Your task to perform on an android device: install app "Facebook" Image 0: 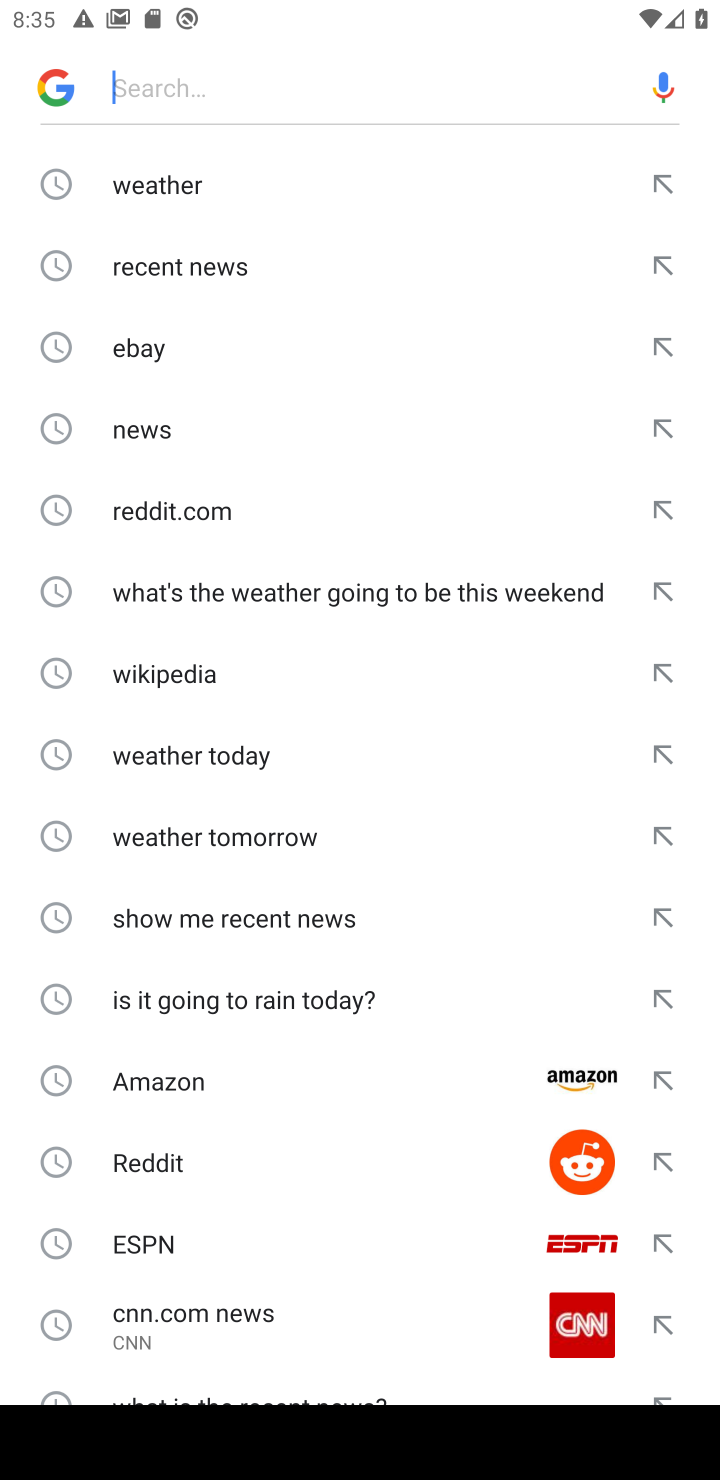
Step 0: press back button
Your task to perform on an android device: install app "Facebook" Image 1: 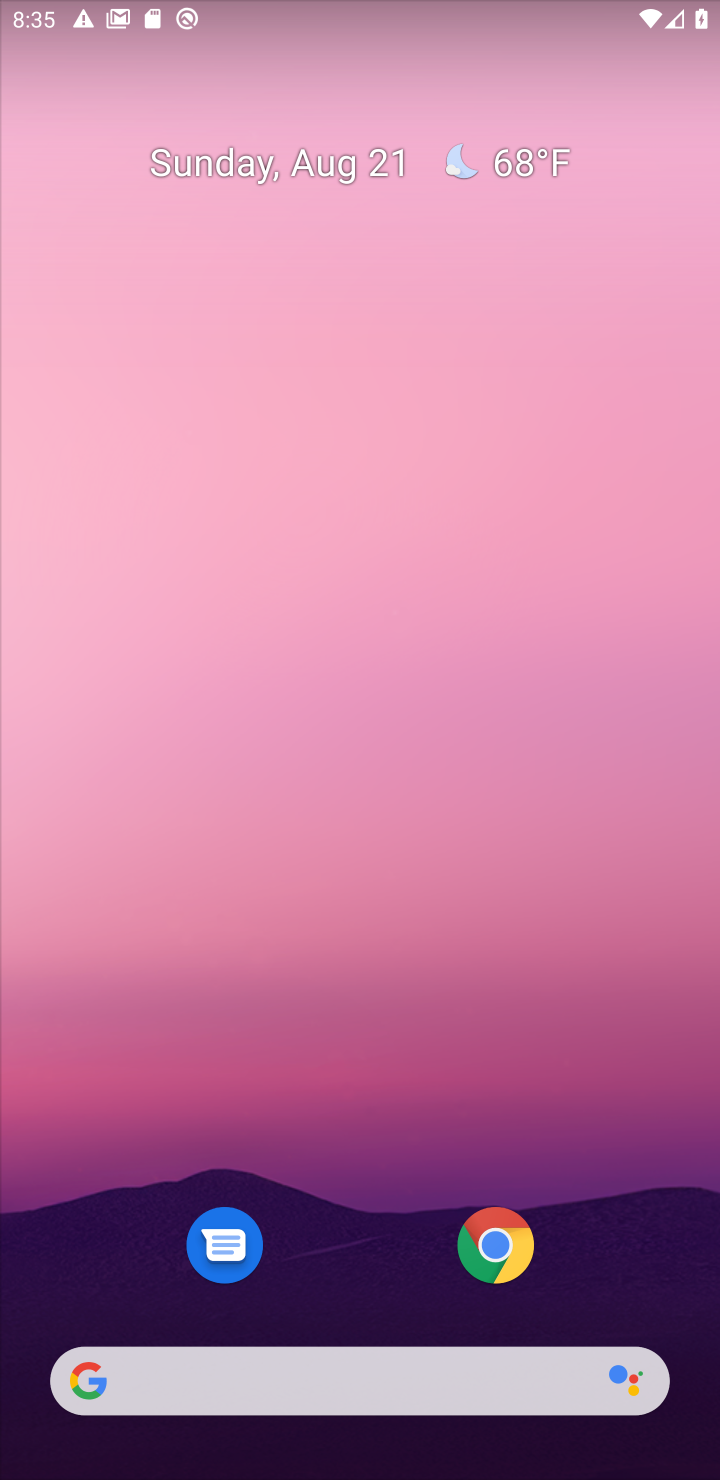
Step 1: drag from (351, 1323) to (329, 267)
Your task to perform on an android device: install app "Facebook" Image 2: 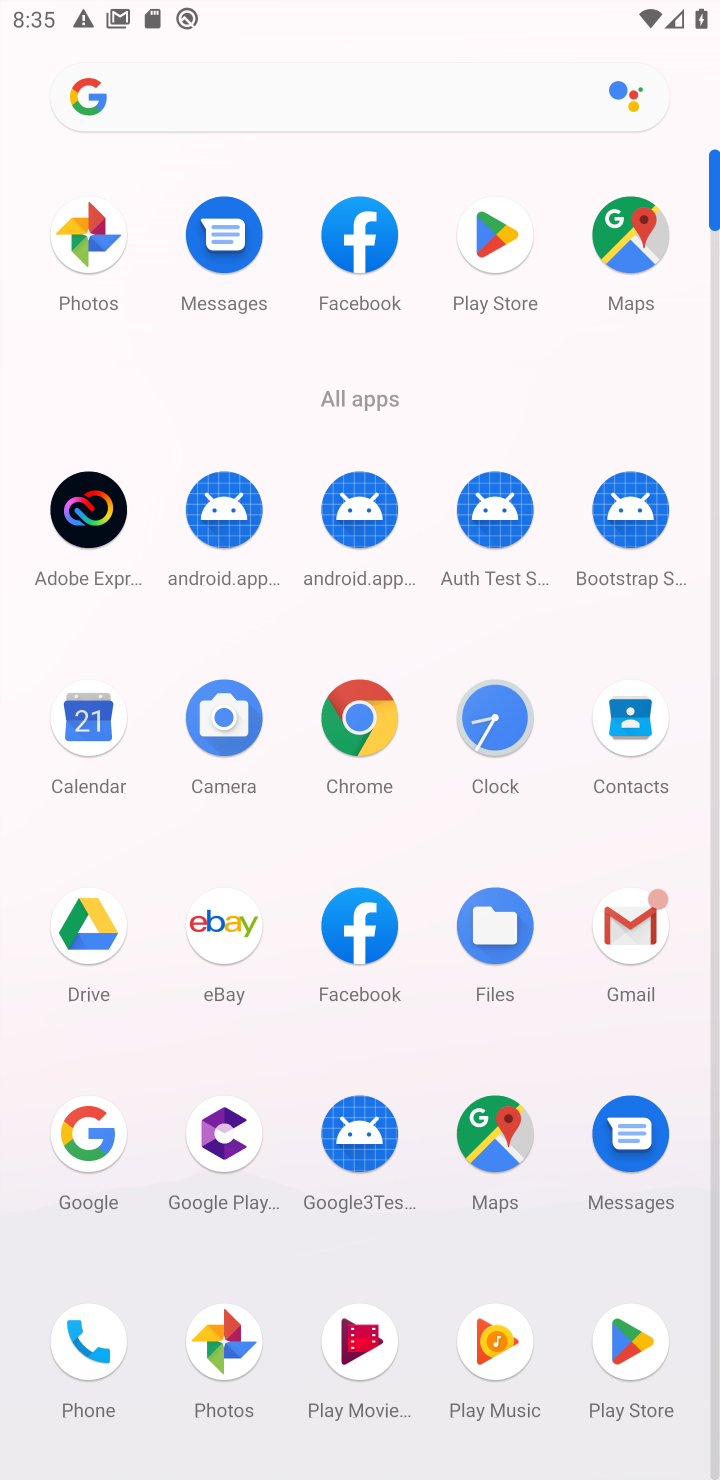
Step 2: click (627, 1339)
Your task to perform on an android device: install app "Facebook" Image 3: 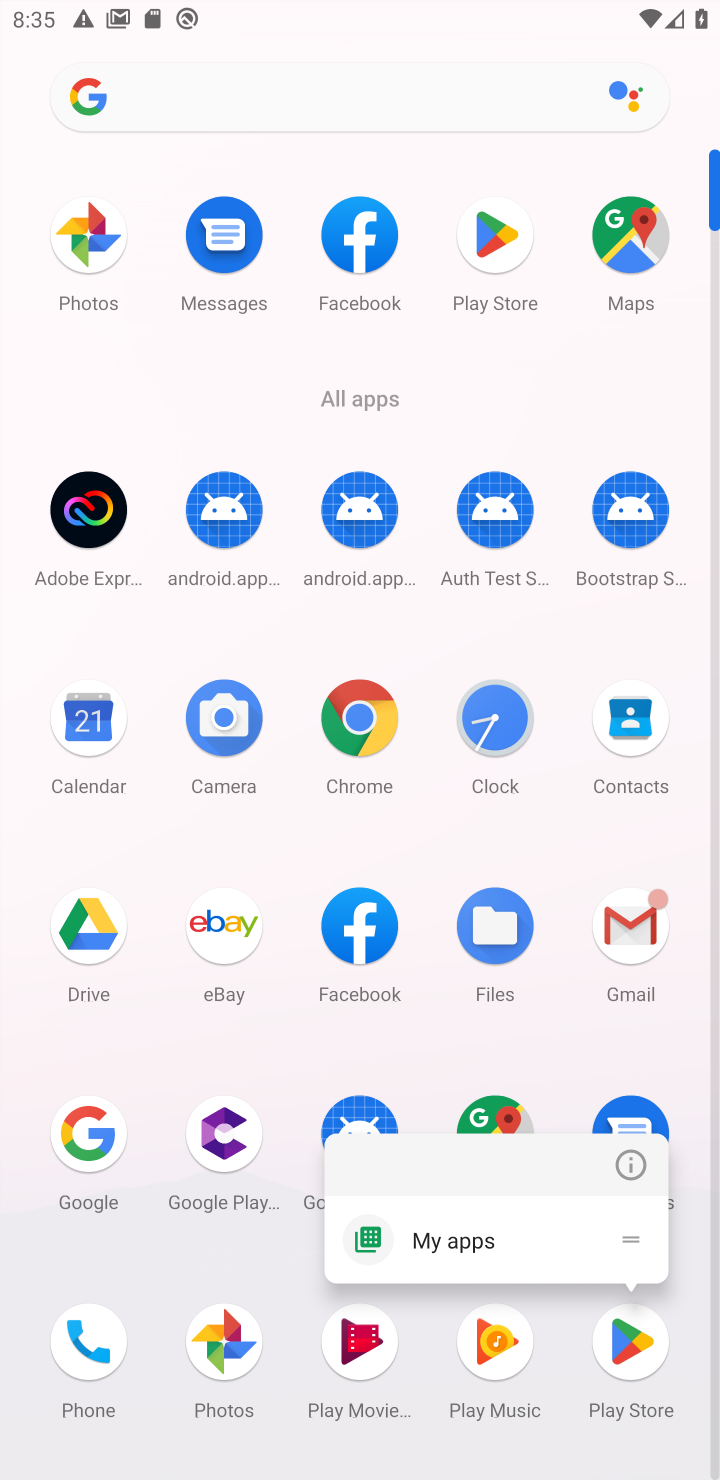
Step 3: click (640, 1399)
Your task to perform on an android device: install app "Facebook" Image 4: 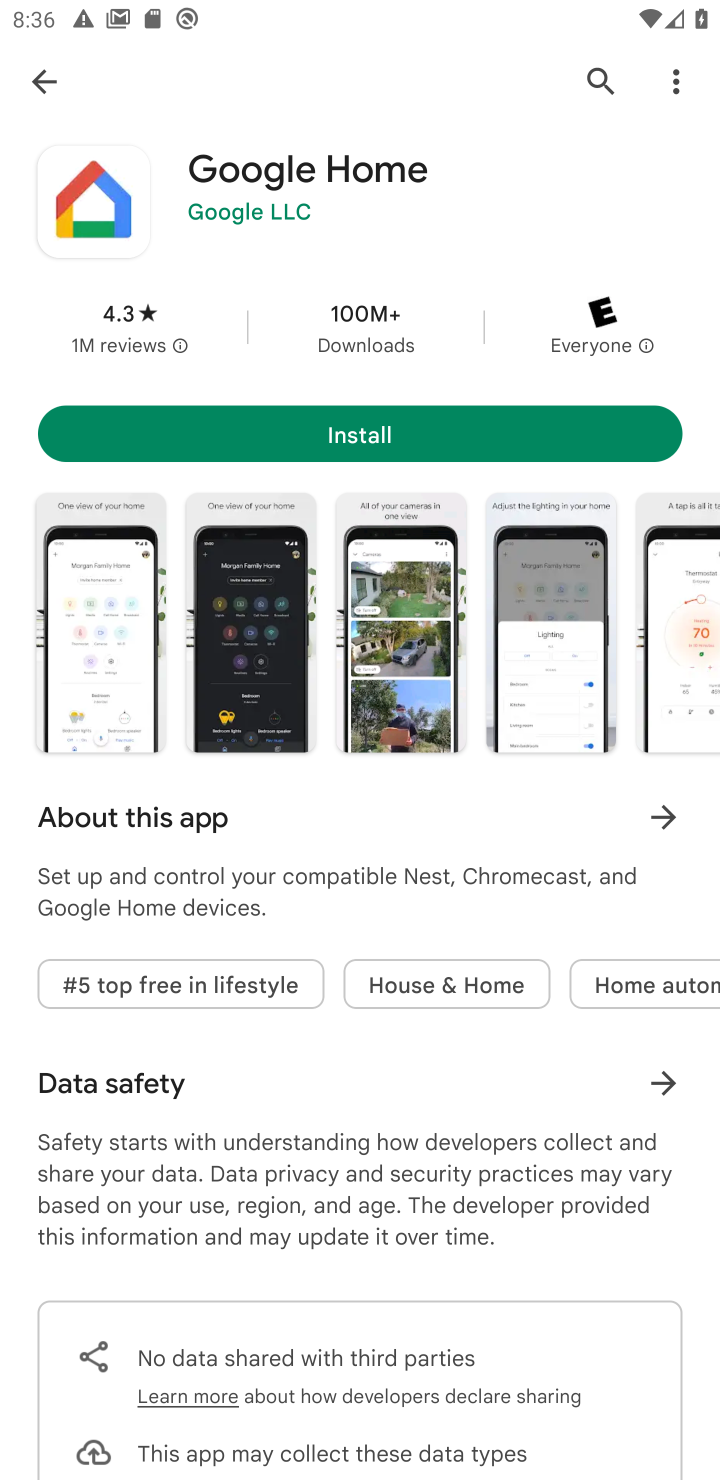
Step 4: click (49, 84)
Your task to perform on an android device: install app "Facebook" Image 5: 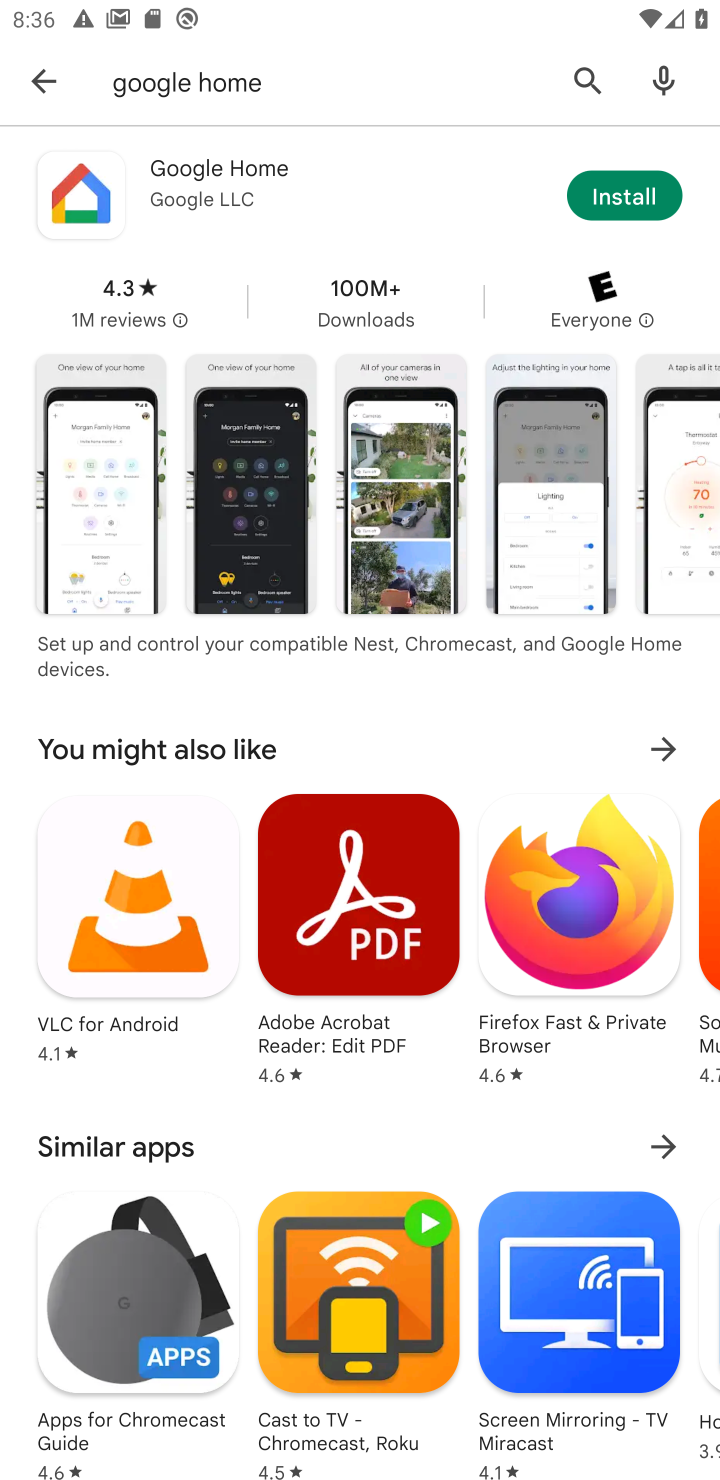
Step 5: click (44, 107)
Your task to perform on an android device: install app "Facebook" Image 6: 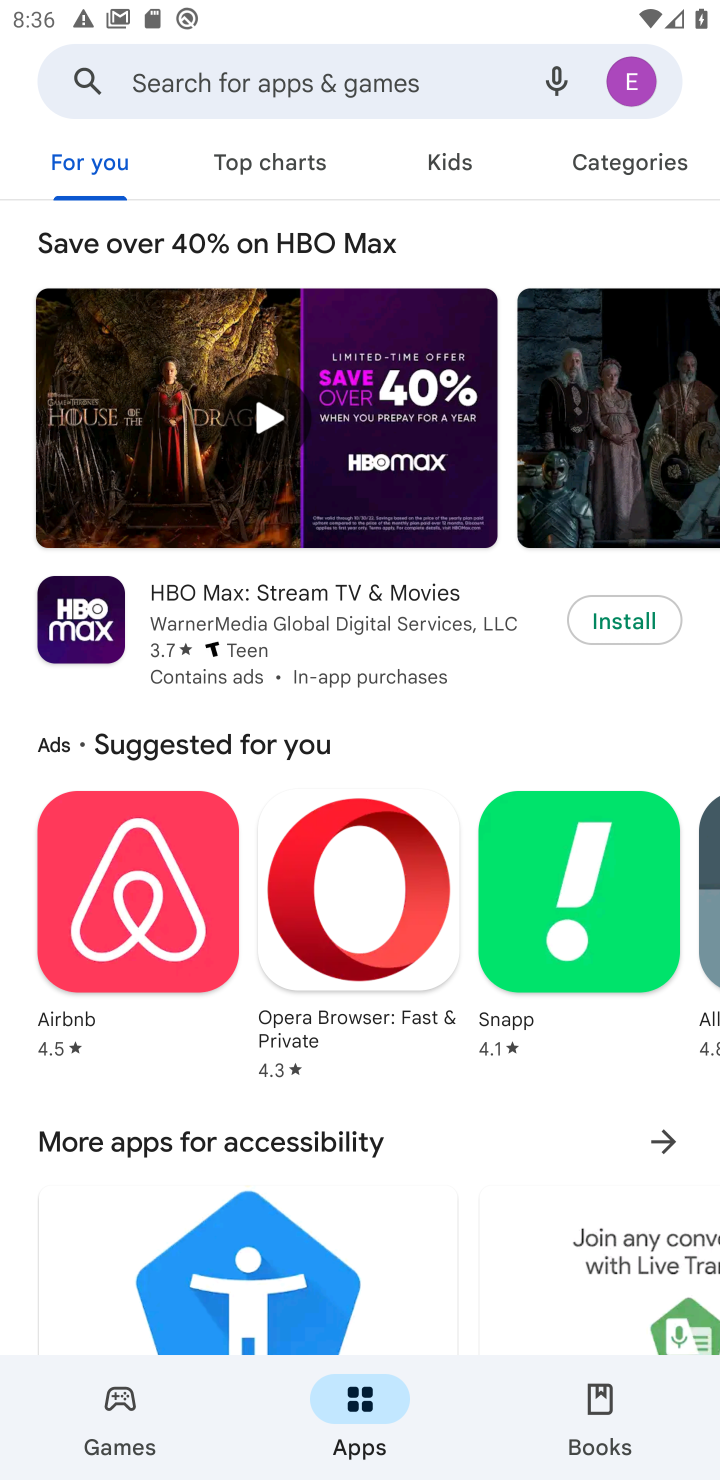
Step 6: click (196, 67)
Your task to perform on an android device: install app "Facebook" Image 7: 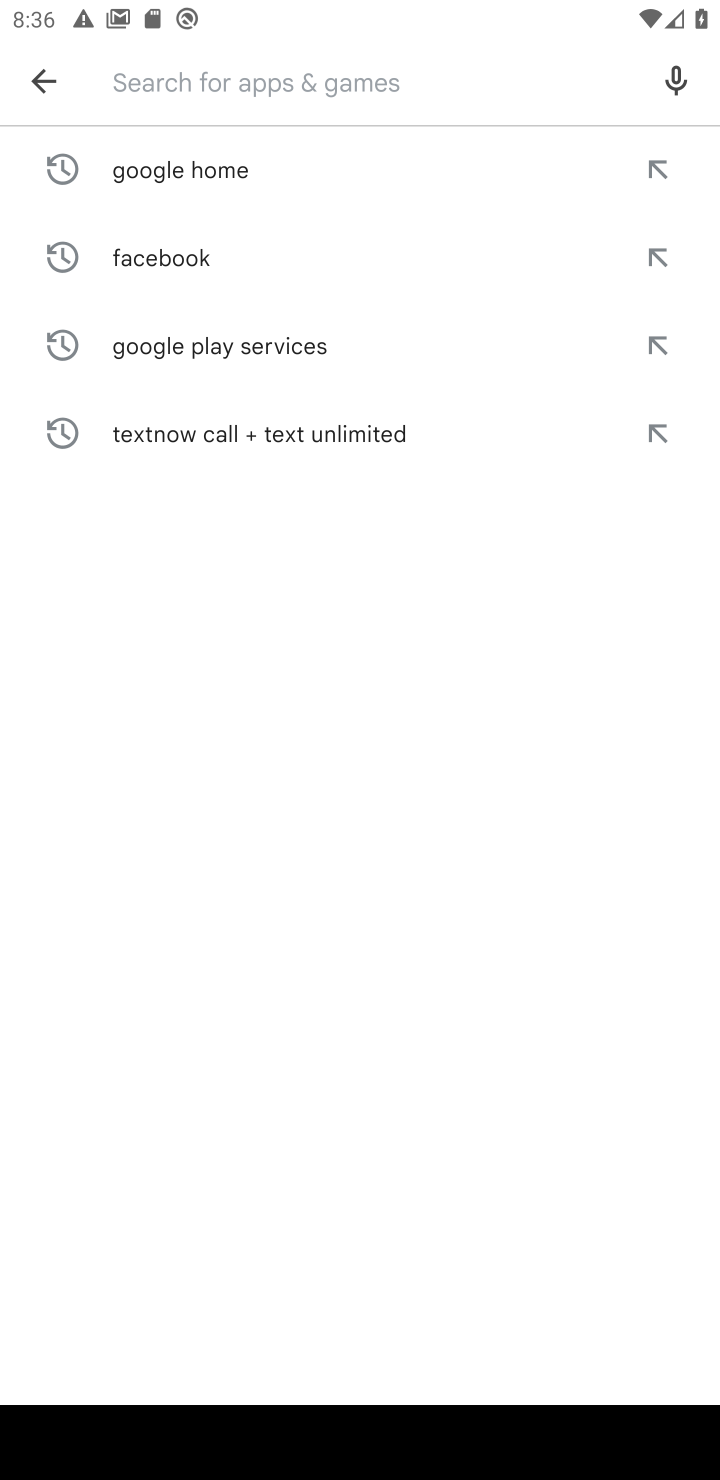
Step 7: type "Facebook"
Your task to perform on an android device: install app "Facebook" Image 8: 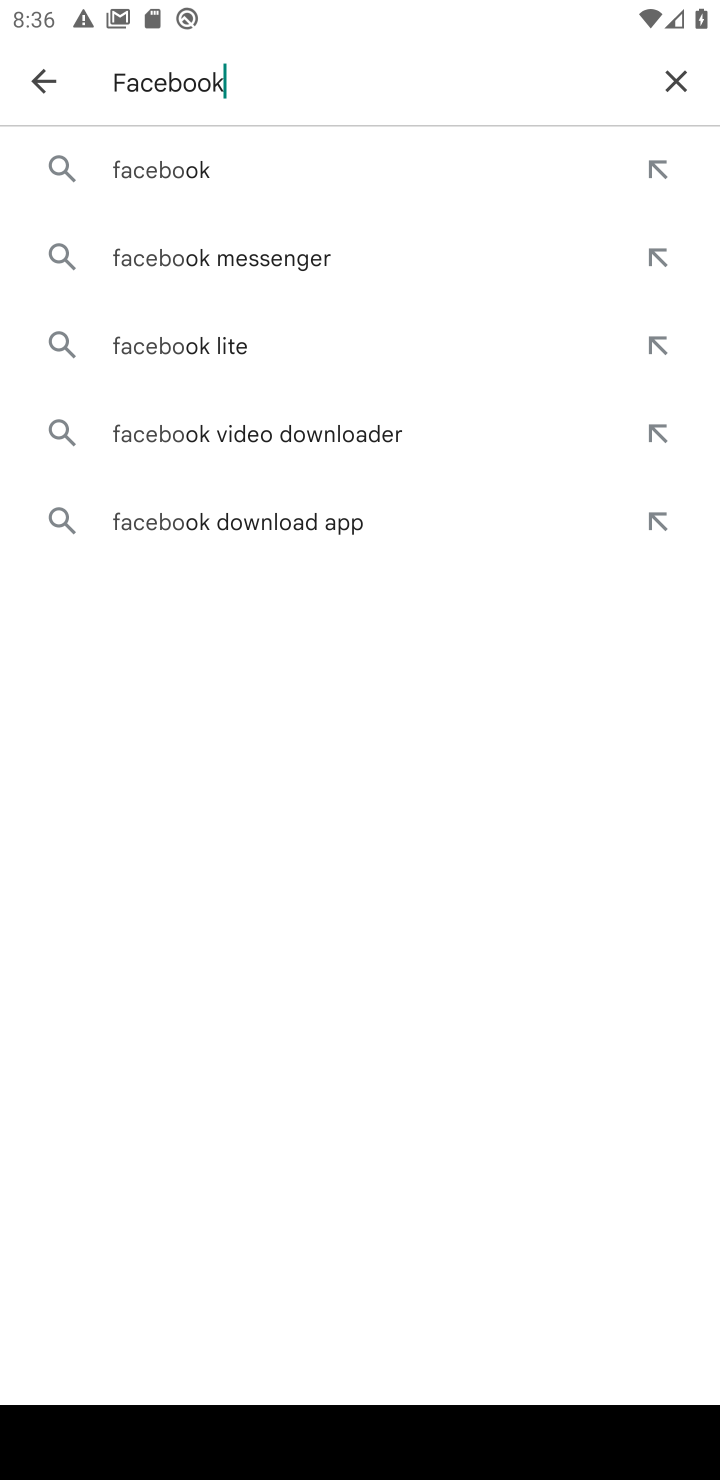
Step 8: type ""
Your task to perform on an android device: install app "Facebook" Image 9: 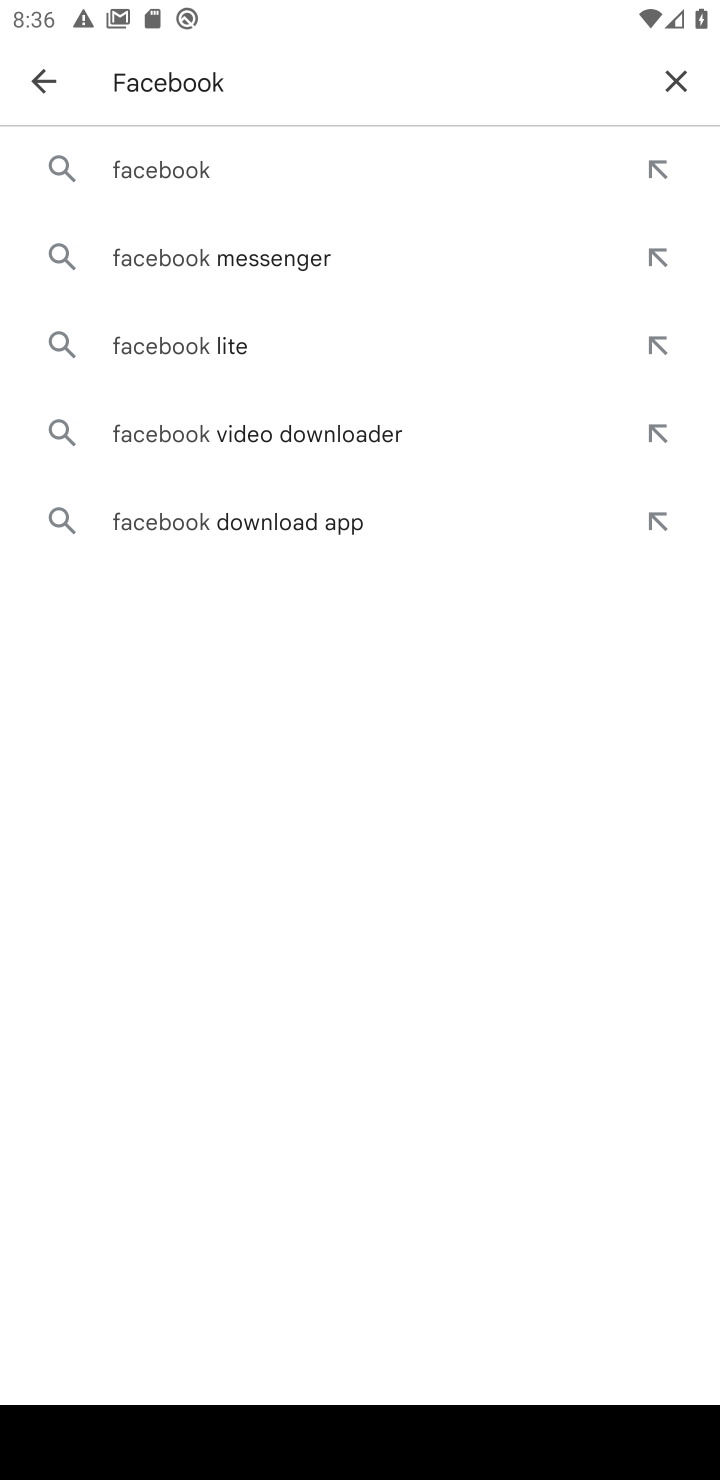
Step 9: click (156, 155)
Your task to perform on an android device: install app "Facebook" Image 10: 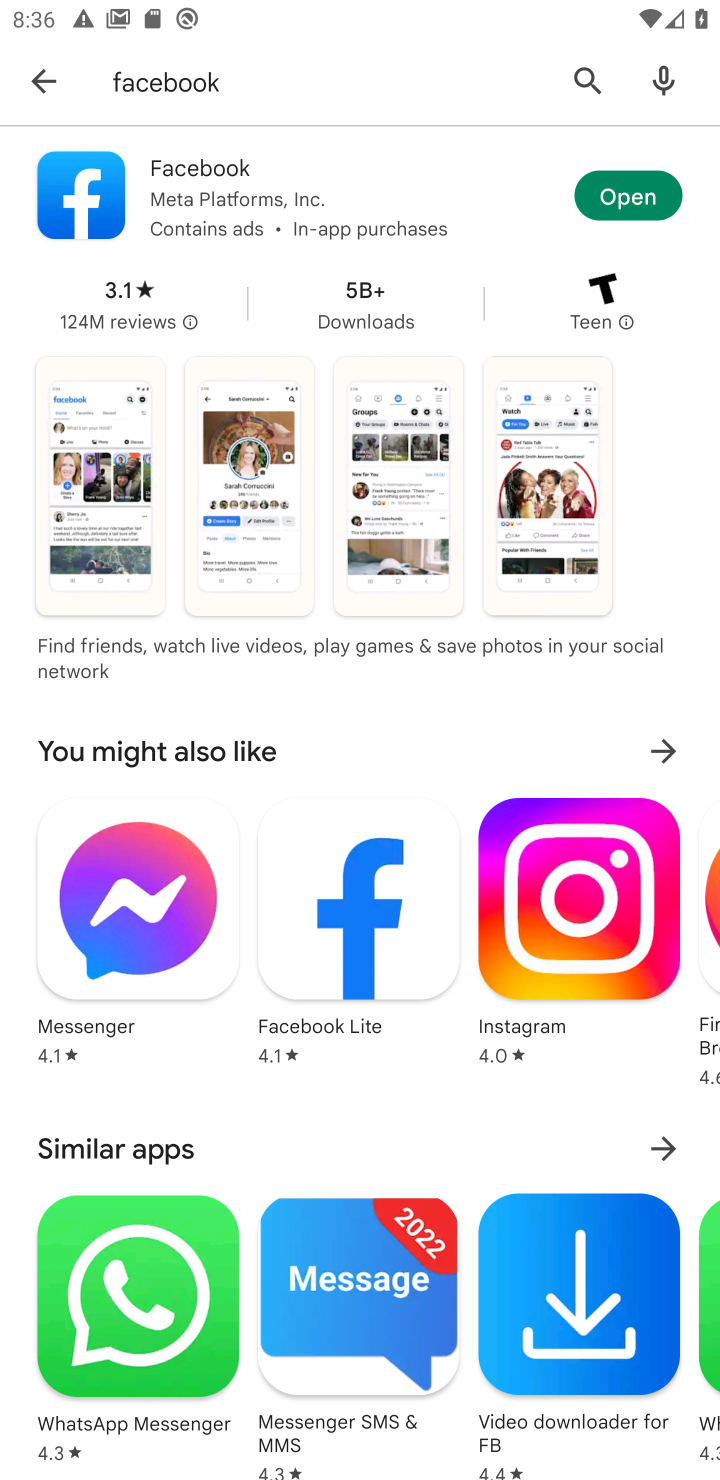
Step 10: click (653, 199)
Your task to perform on an android device: install app "Facebook" Image 11: 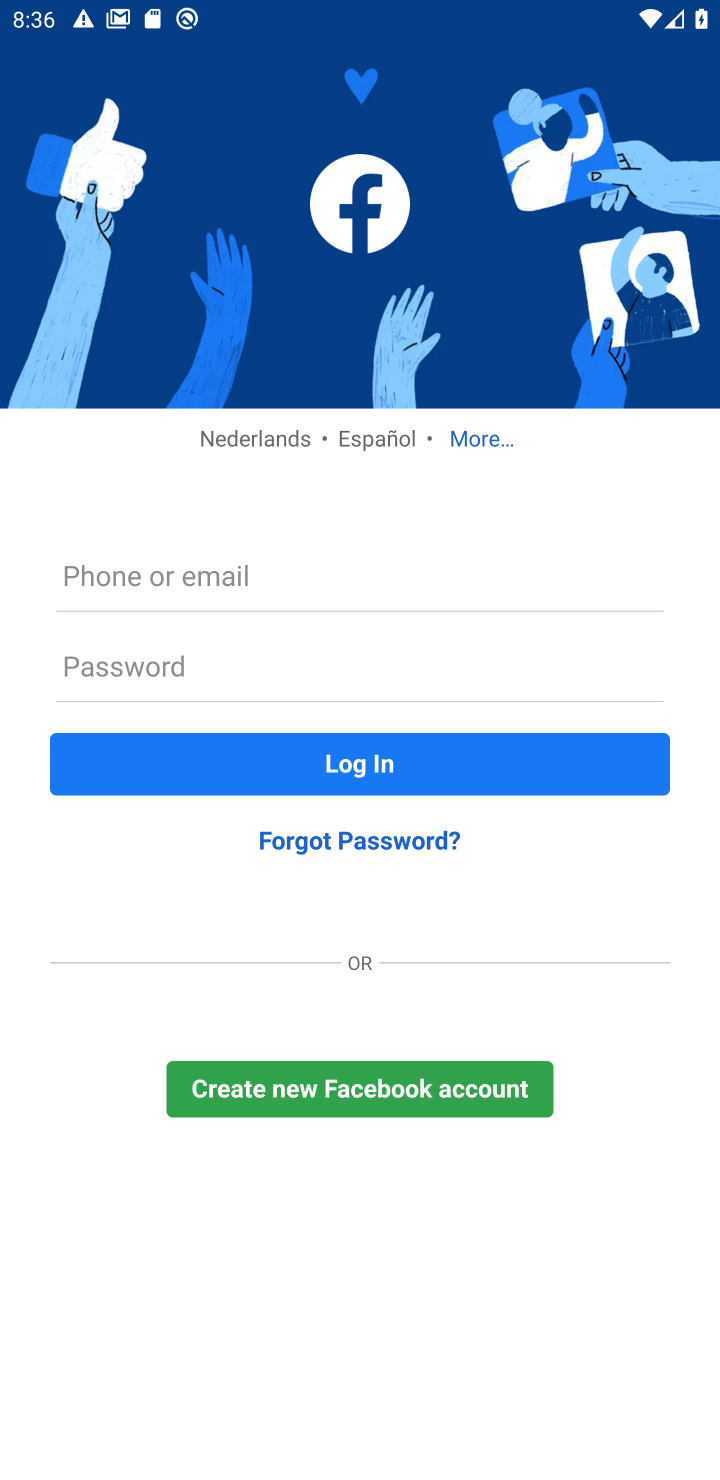
Step 11: task complete